Your task to perform on an android device: install app "Venmo" Image 0: 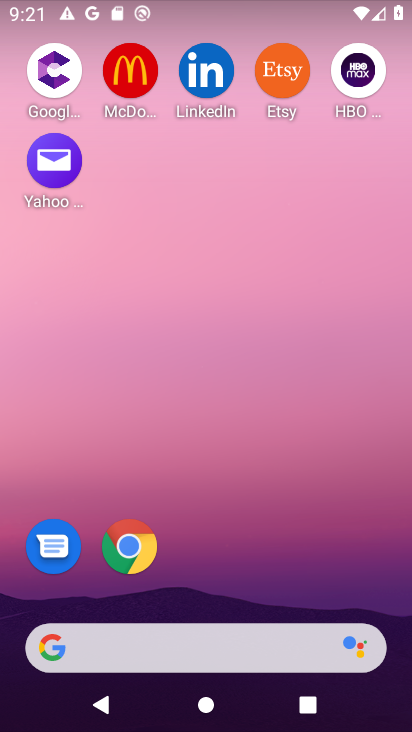
Step 0: drag from (215, 579) to (203, 163)
Your task to perform on an android device: install app "Venmo" Image 1: 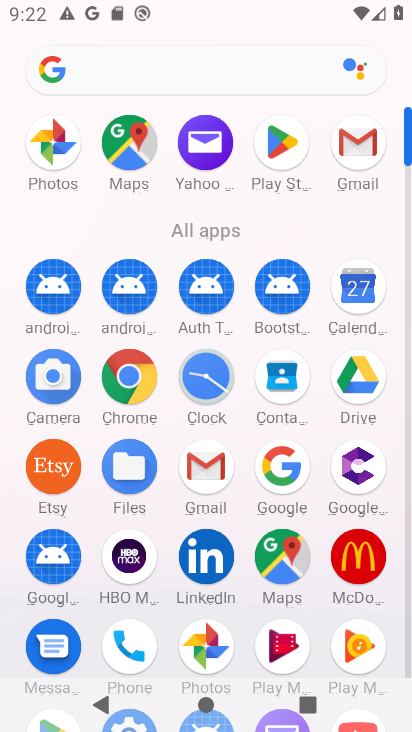
Step 1: click (290, 161)
Your task to perform on an android device: install app "Venmo" Image 2: 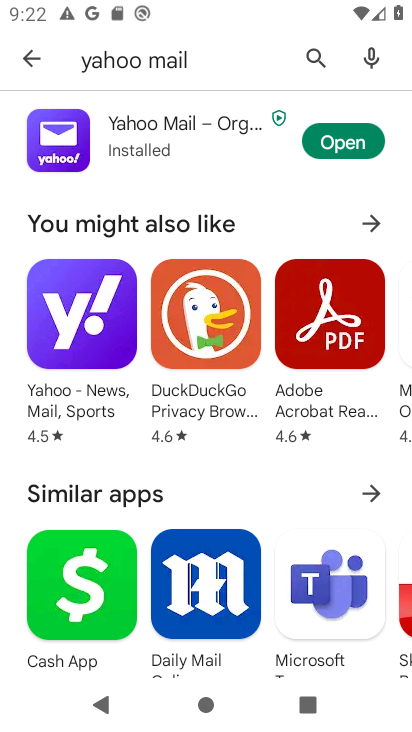
Step 2: click (315, 57)
Your task to perform on an android device: install app "Venmo" Image 3: 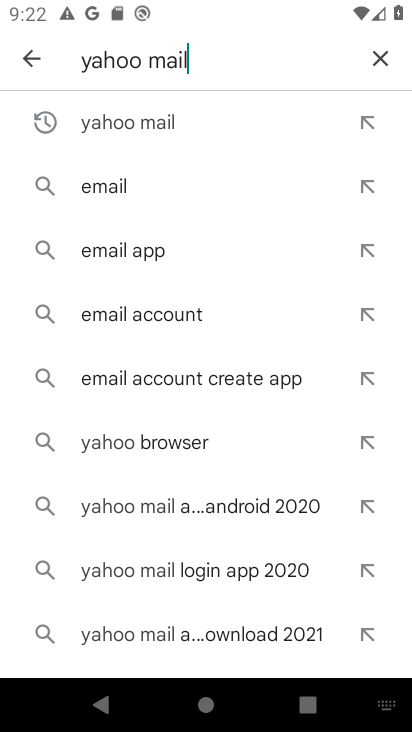
Step 3: click (382, 57)
Your task to perform on an android device: install app "Venmo" Image 4: 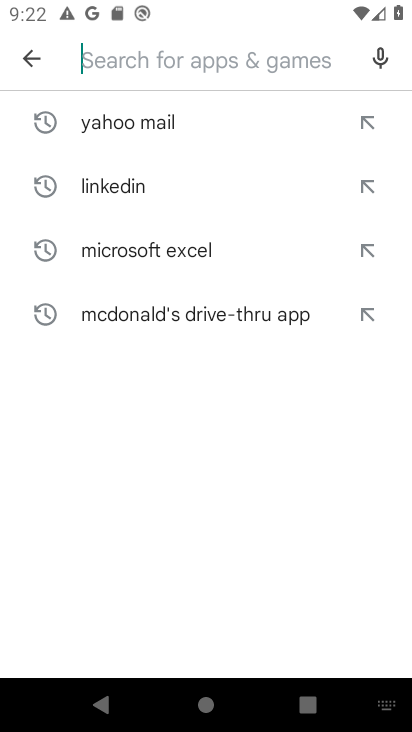
Step 4: click (194, 62)
Your task to perform on an android device: install app "Venmo" Image 5: 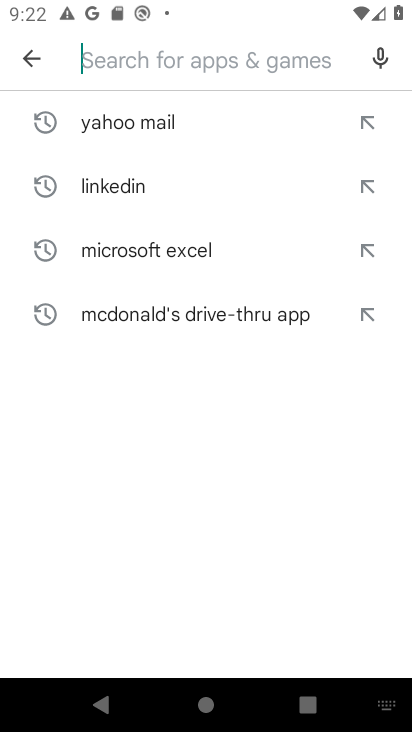
Step 5: type "Venmo"
Your task to perform on an android device: install app "Venmo" Image 6: 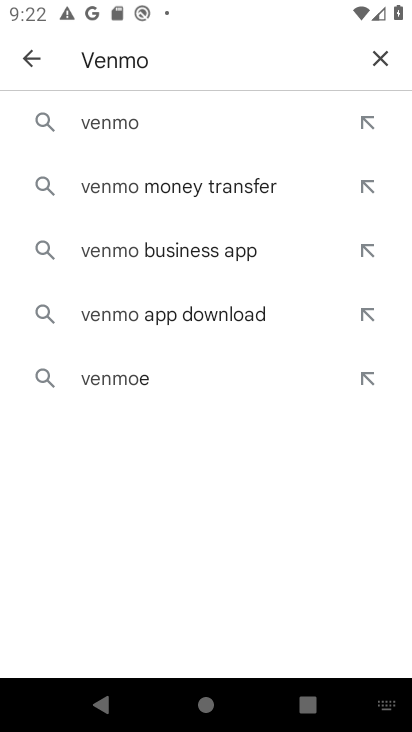
Step 6: click (99, 119)
Your task to perform on an android device: install app "Venmo" Image 7: 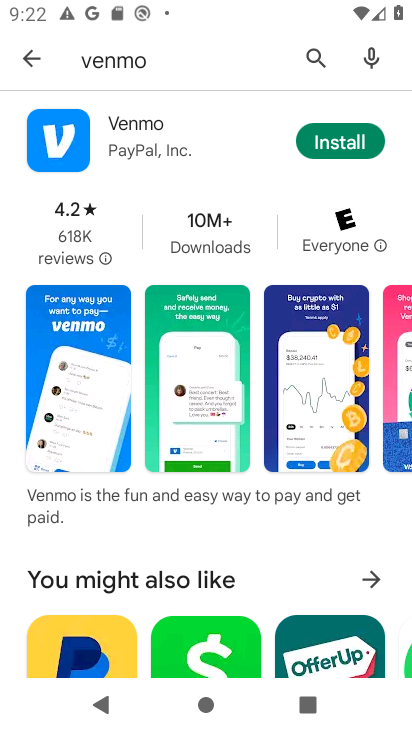
Step 7: click (372, 145)
Your task to perform on an android device: install app "Venmo" Image 8: 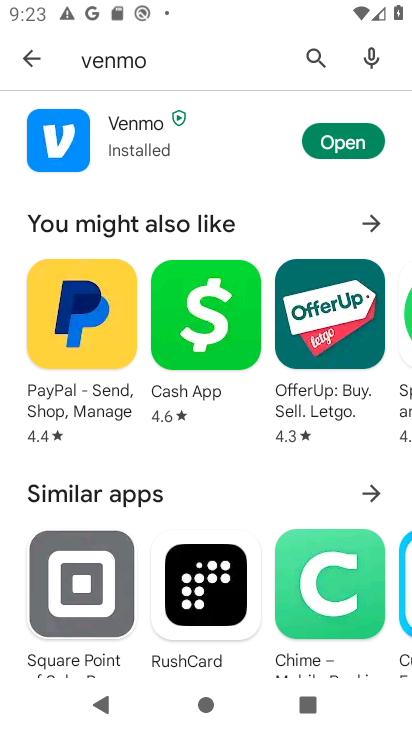
Step 8: task complete